Your task to perform on an android device: When is my next appointment? Image 0: 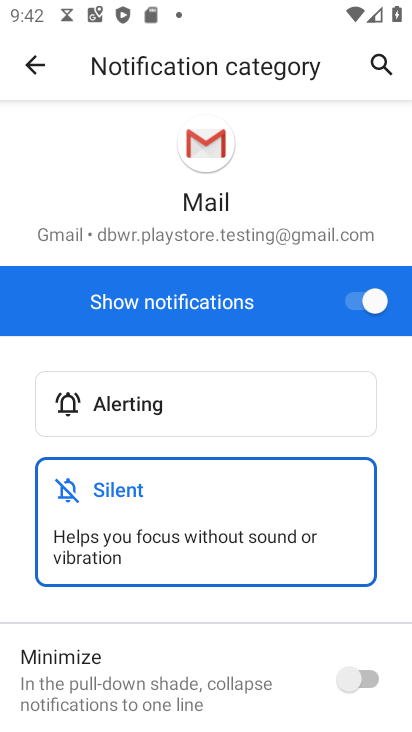
Step 0: press home button
Your task to perform on an android device: When is my next appointment? Image 1: 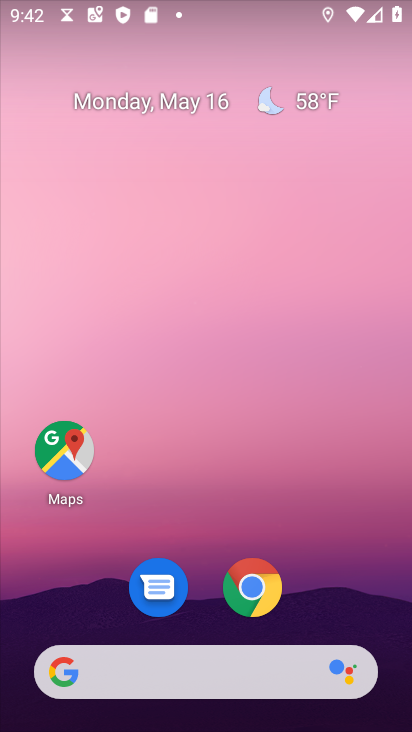
Step 1: drag from (345, 616) to (212, 176)
Your task to perform on an android device: When is my next appointment? Image 2: 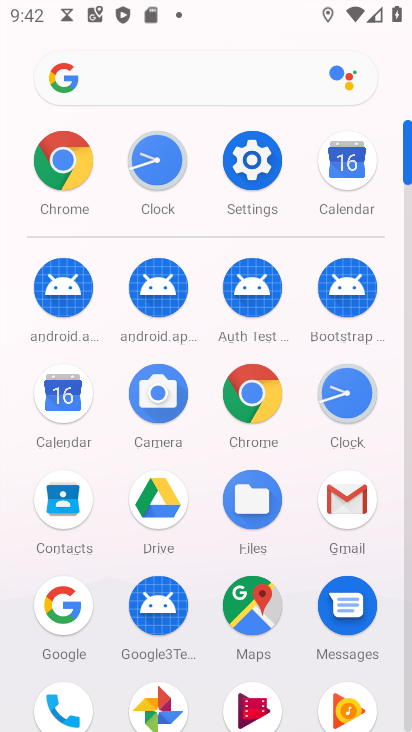
Step 2: click (351, 155)
Your task to perform on an android device: When is my next appointment? Image 3: 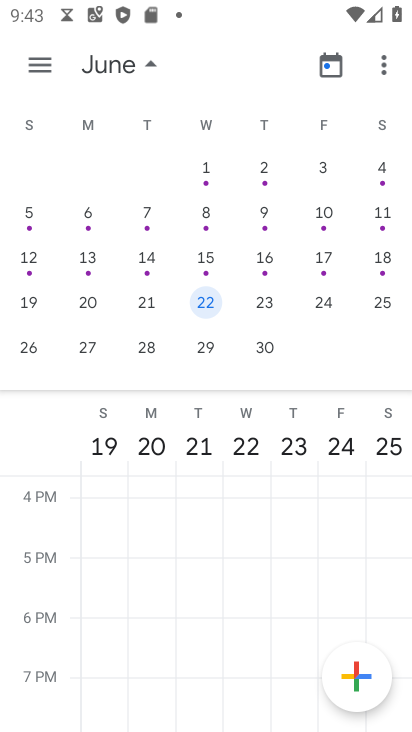
Step 3: click (40, 75)
Your task to perform on an android device: When is my next appointment? Image 4: 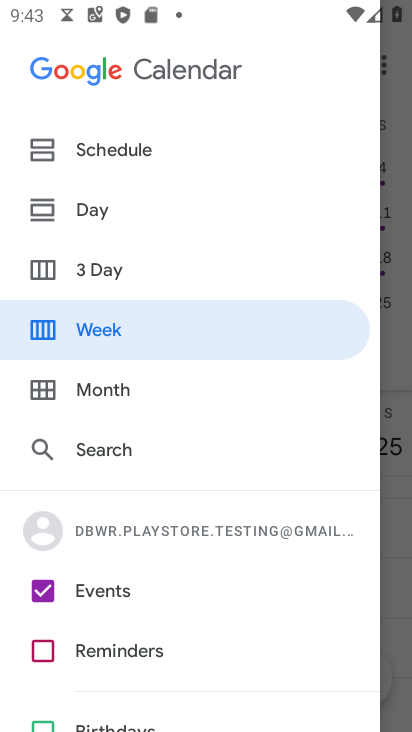
Step 4: click (108, 145)
Your task to perform on an android device: When is my next appointment? Image 5: 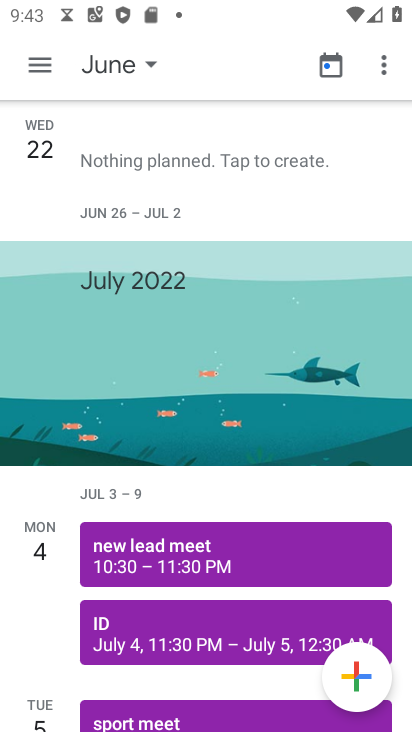
Step 5: click (129, 75)
Your task to perform on an android device: When is my next appointment? Image 6: 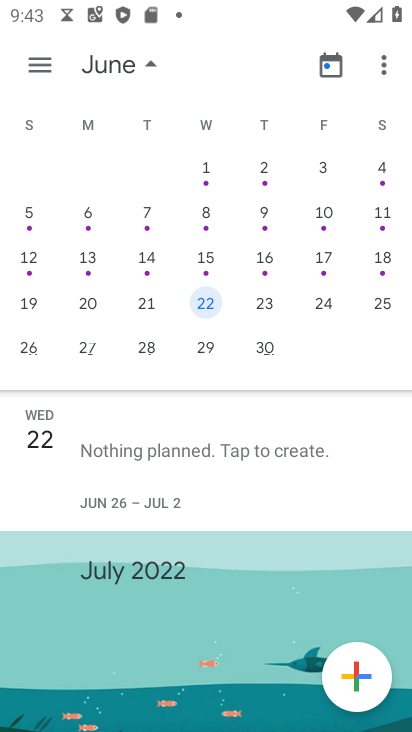
Step 6: drag from (123, 187) to (406, 269)
Your task to perform on an android device: When is my next appointment? Image 7: 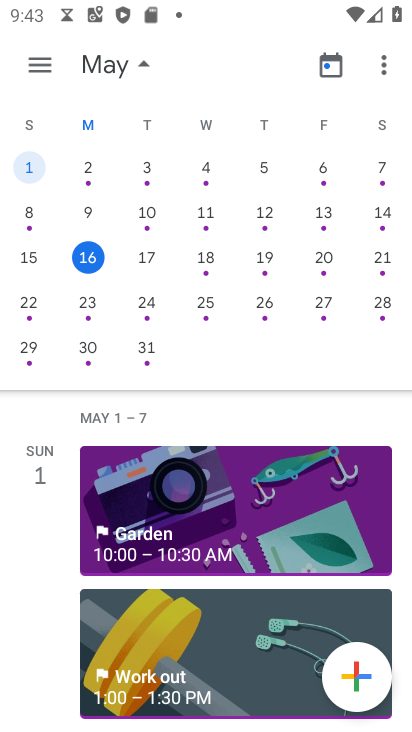
Step 7: click (138, 258)
Your task to perform on an android device: When is my next appointment? Image 8: 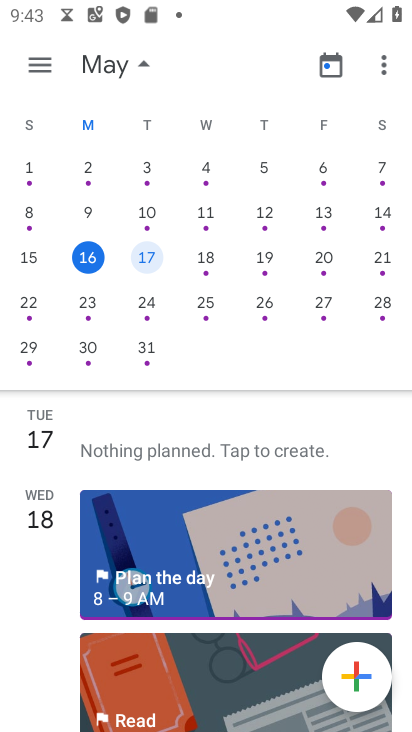
Step 8: click (142, 72)
Your task to perform on an android device: When is my next appointment? Image 9: 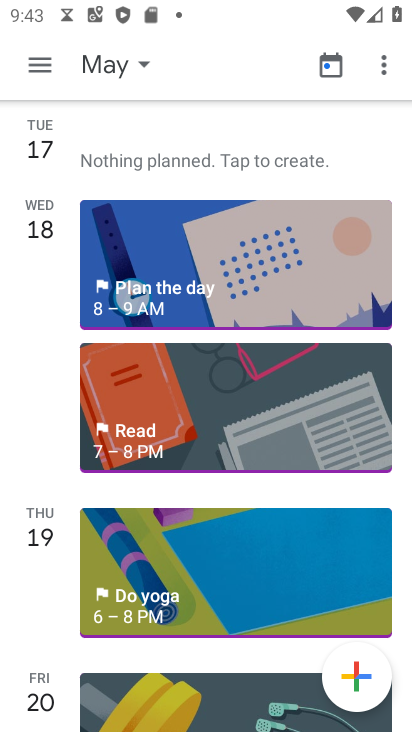
Step 9: task complete